Your task to perform on an android device: turn off location Image 0: 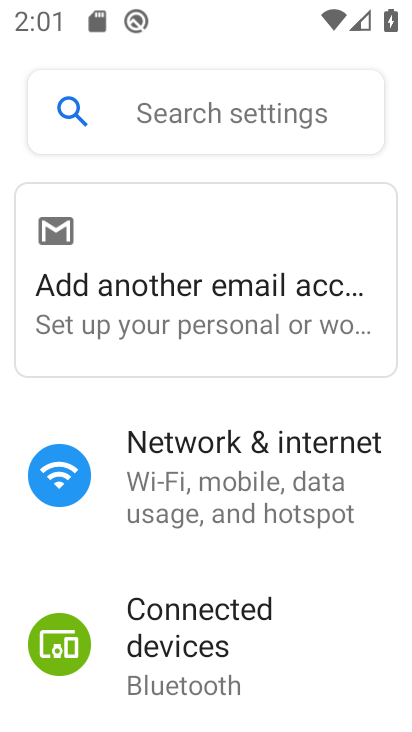
Step 0: press home button
Your task to perform on an android device: turn off location Image 1: 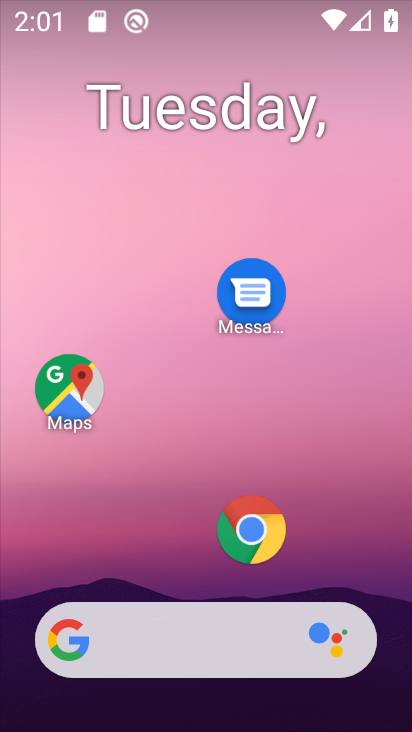
Step 1: drag from (160, 503) to (188, 71)
Your task to perform on an android device: turn off location Image 2: 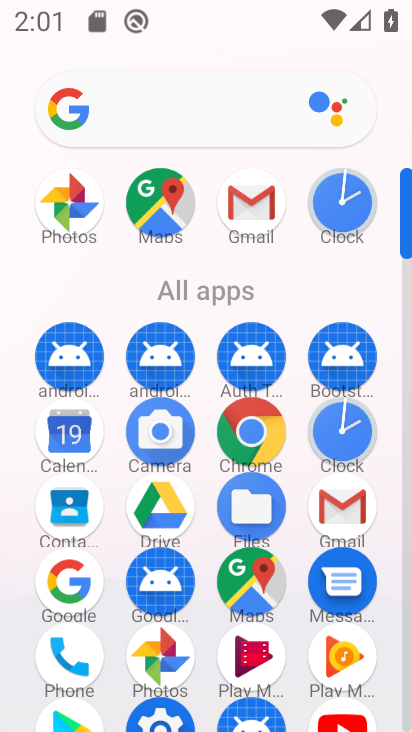
Step 2: click (158, 717)
Your task to perform on an android device: turn off location Image 3: 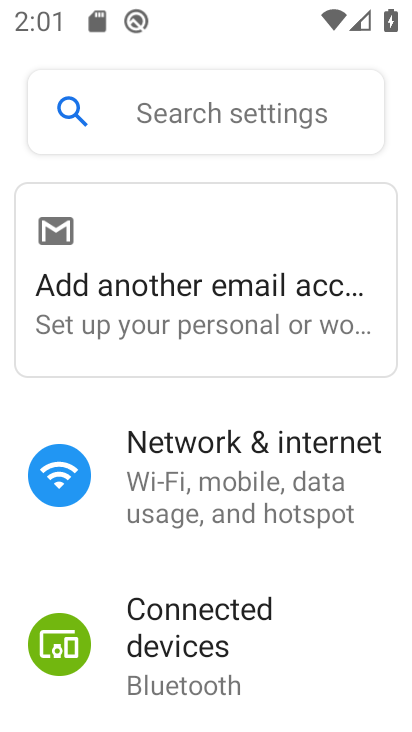
Step 3: drag from (209, 571) to (223, 217)
Your task to perform on an android device: turn off location Image 4: 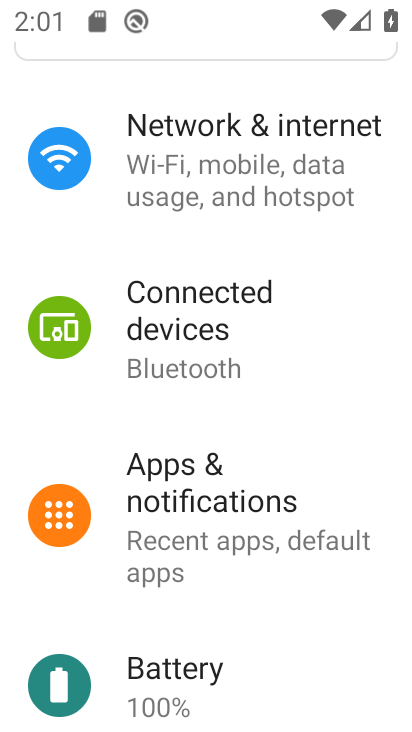
Step 4: drag from (247, 589) to (263, 139)
Your task to perform on an android device: turn off location Image 5: 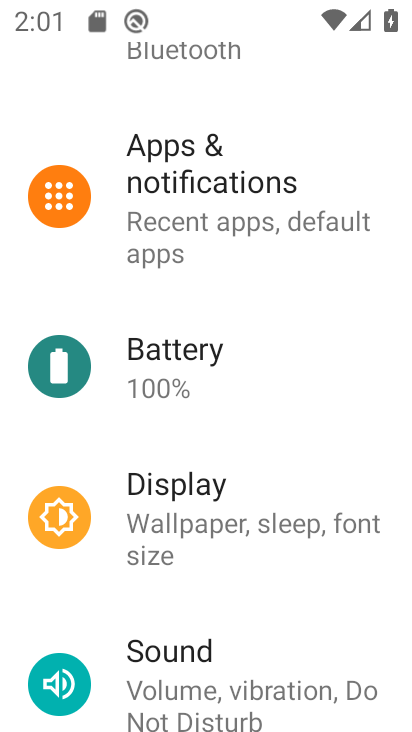
Step 5: drag from (242, 709) to (230, 341)
Your task to perform on an android device: turn off location Image 6: 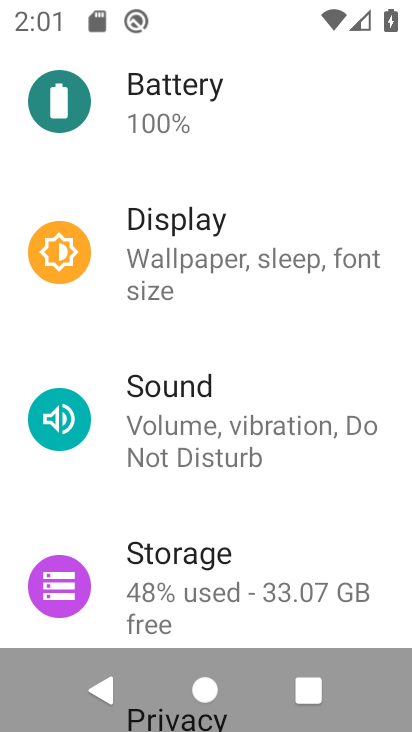
Step 6: drag from (209, 541) to (210, 192)
Your task to perform on an android device: turn off location Image 7: 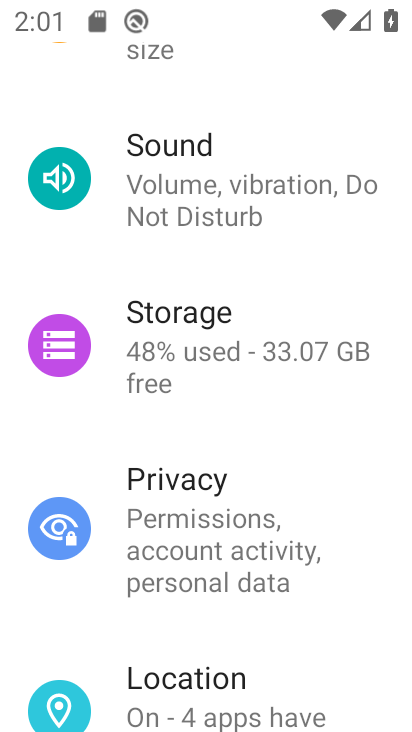
Step 7: click (192, 701)
Your task to perform on an android device: turn off location Image 8: 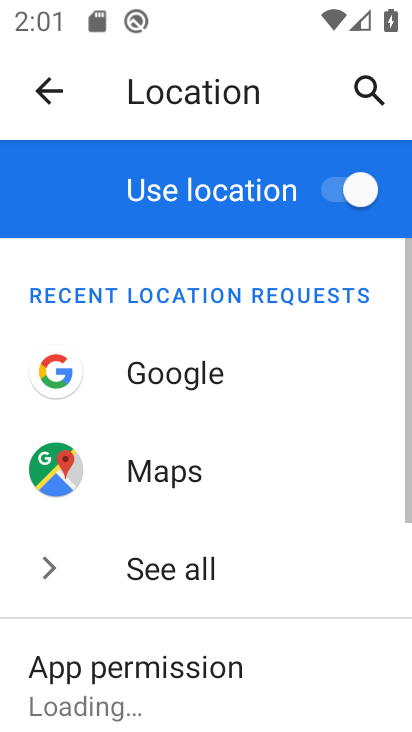
Step 8: click (340, 192)
Your task to perform on an android device: turn off location Image 9: 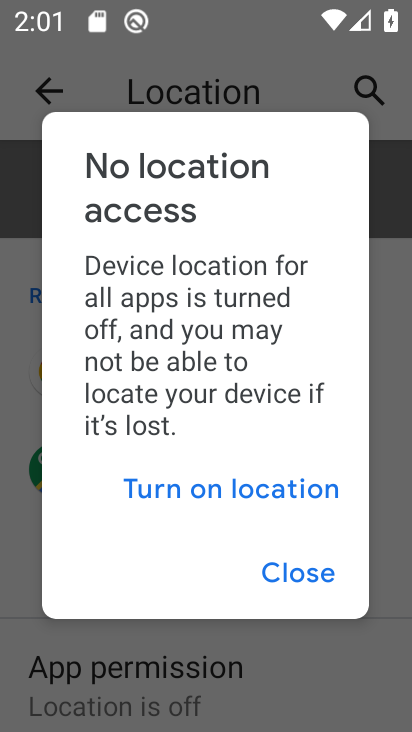
Step 9: click (299, 570)
Your task to perform on an android device: turn off location Image 10: 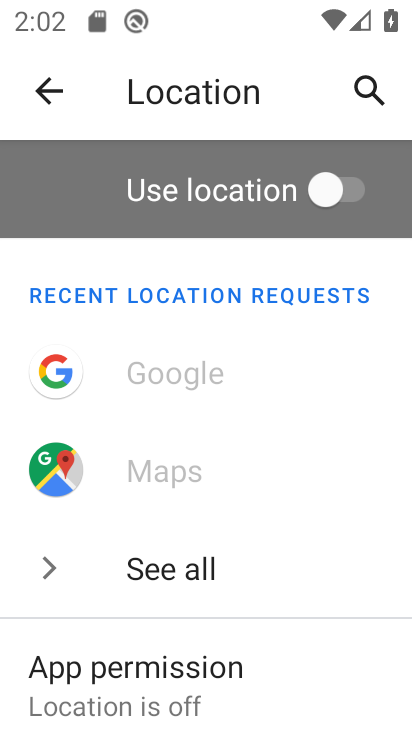
Step 10: task complete